Your task to perform on an android device: change text size in settings app Image 0: 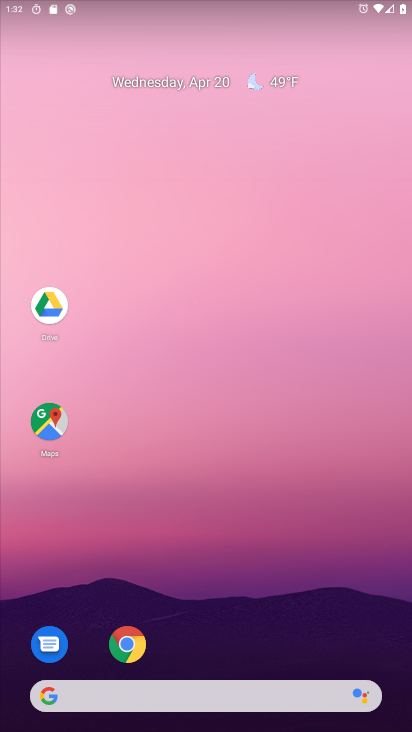
Step 0: drag from (238, 116) to (235, 78)
Your task to perform on an android device: change text size in settings app Image 1: 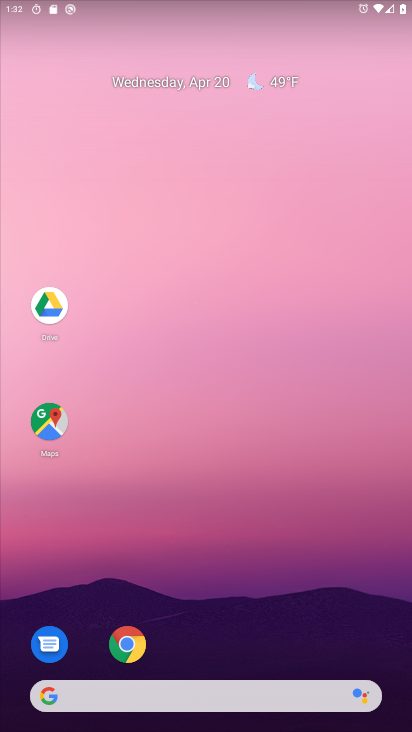
Step 1: drag from (243, 221) to (220, 1)
Your task to perform on an android device: change text size in settings app Image 2: 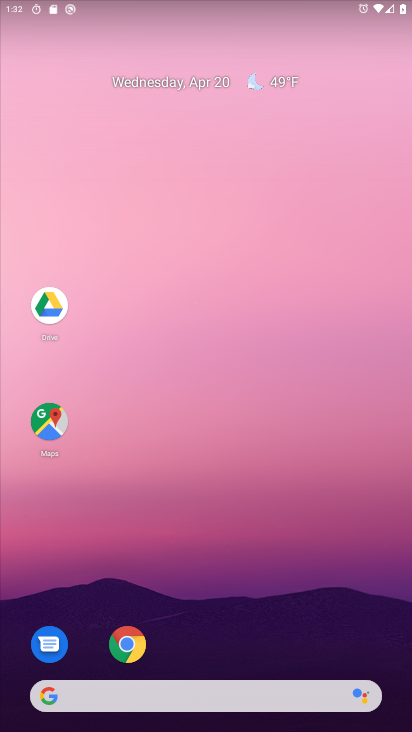
Step 2: drag from (221, 641) to (183, 0)
Your task to perform on an android device: change text size in settings app Image 3: 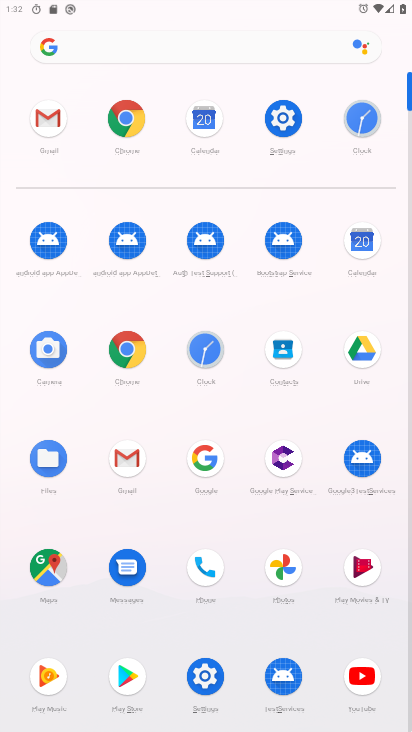
Step 3: click (284, 149)
Your task to perform on an android device: change text size in settings app Image 4: 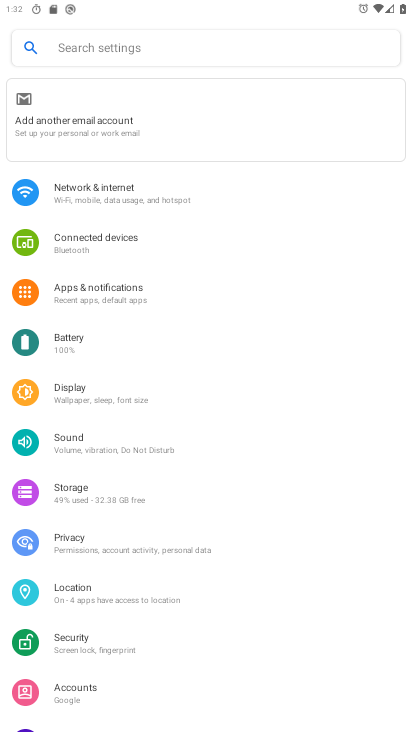
Step 4: click (125, 393)
Your task to perform on an android device: change text size in settings app Image 5: 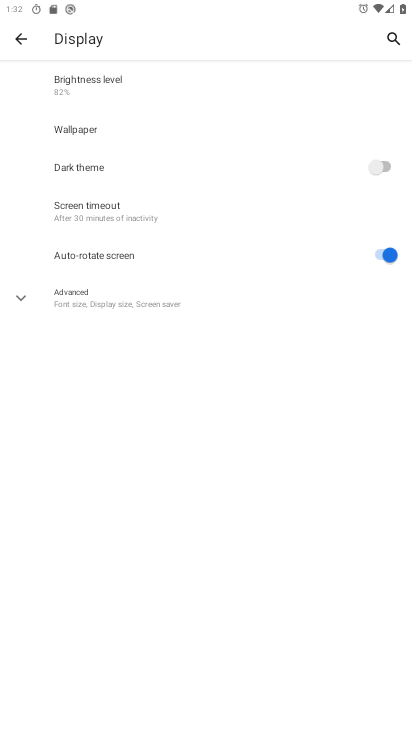
Step 5: click (150, 303)
Your task to perform on an android device: change text size in settings app Image 6: 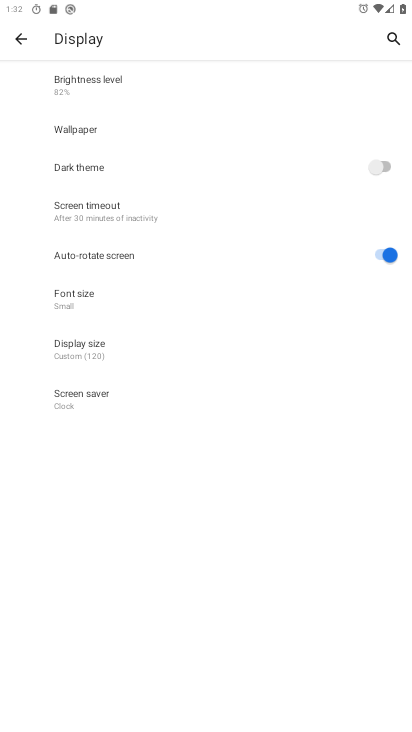
Step 6: click (105, 306)
Your task to perform on an android device: change text size in settings app Image 7: 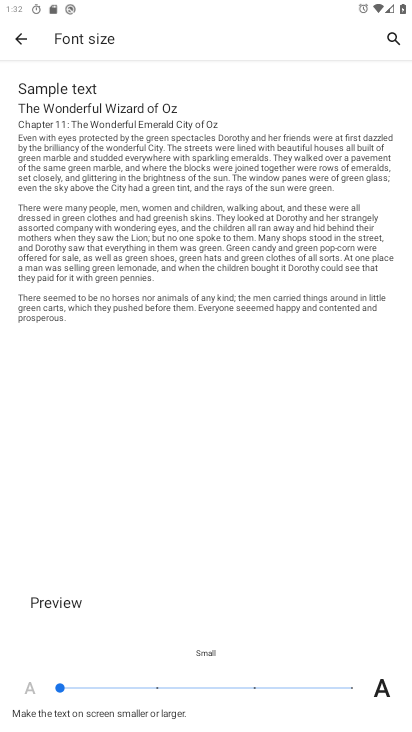
Step 7: click (251, 690)
Your task to perform on an android device: change text size in settings app Image 8: 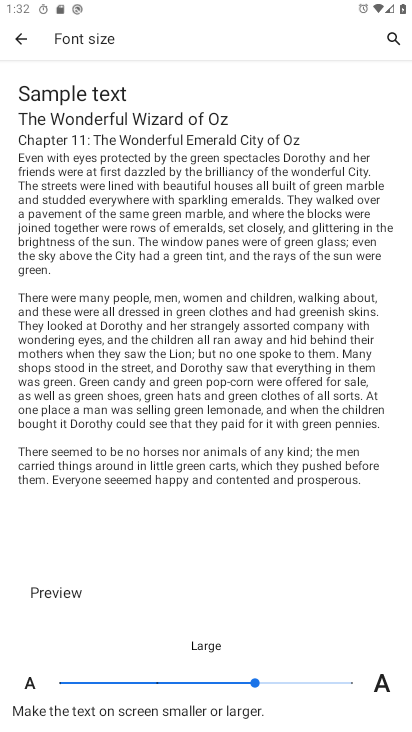
Step 8: task complete